Your task to perform on an android device: Open Android settings Image 0: 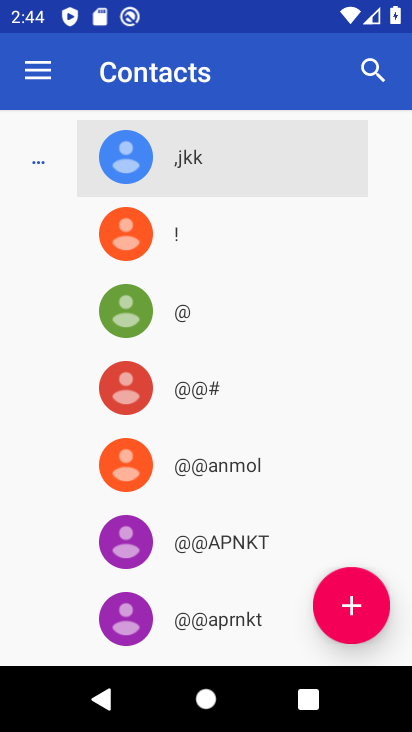
Step 0: press back button
Your task to perform on an android device: Open Android settings Image 1: 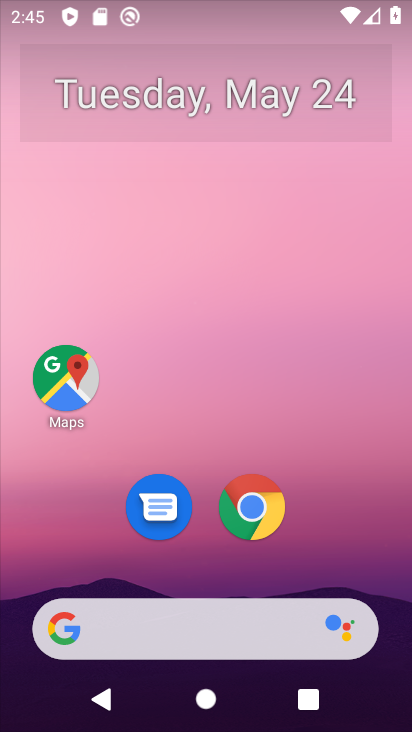
Step 1: drag from (187, 566) to (255, 99)
Your task to perform on an android device: Open Android settings Image 2: 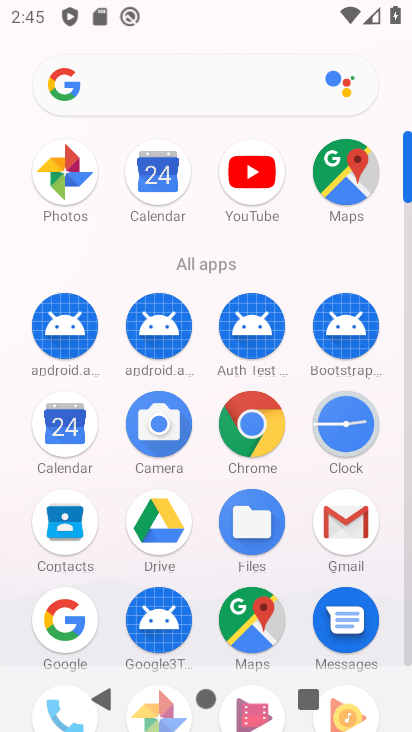
Step 2: drag from (168, 591) to (268, 143)
Your task to perform on an android device: Open Android settings Image 3: 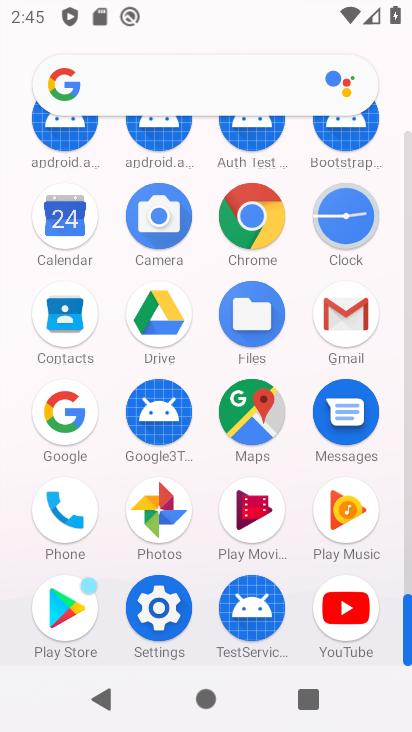
Step 3: click (159, 605)
Your task to perform on an android device: Open Android settings Image 4: 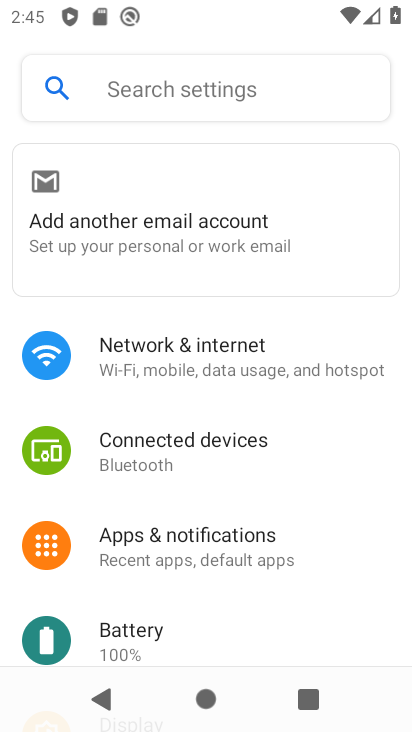
Step 4: drag from (152, 596) to (298, 46)
Your task to perform on an android device: Open Android settings Image 5: 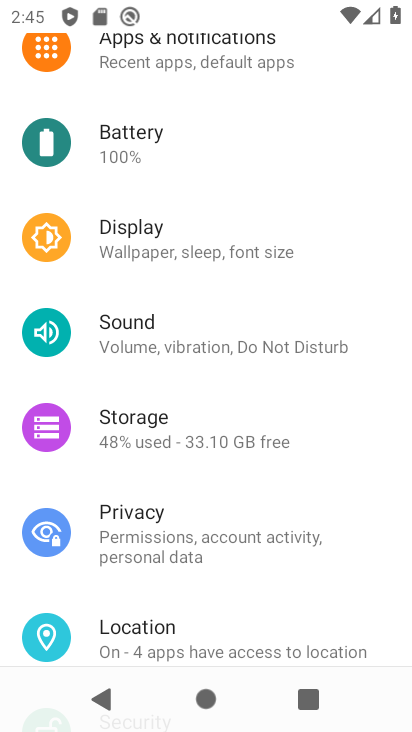
Step 5: drag from (156, 579) to (261, 100)
Your task to perform on an android device: Open Android settings Image 6: 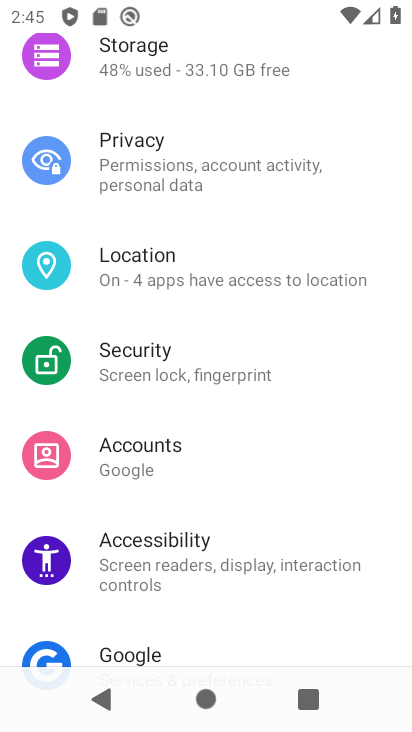
Step 6: drag from (155, 626) to (260, 85)
Your task to perform on an android device: Open Android settings Image 7: 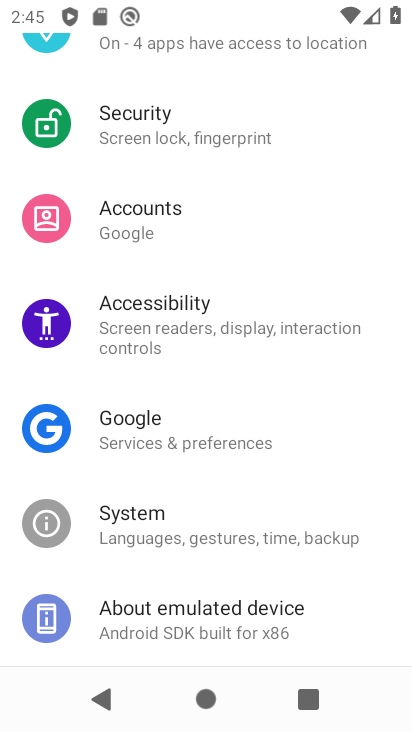
Step 7: click (166, 617)
Your task to perform on an android device: Open Android settings Image 8: 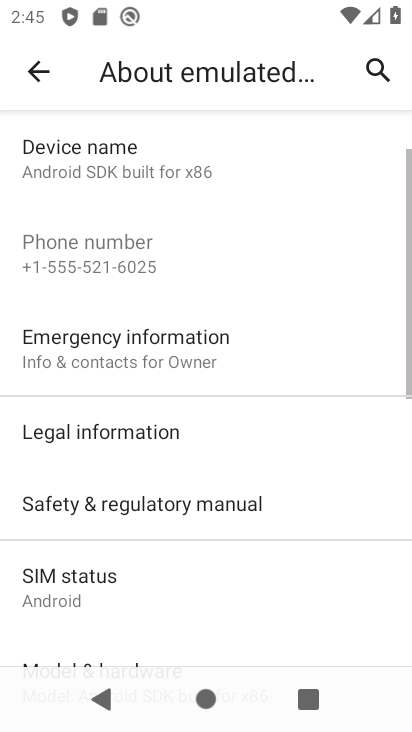
Step 8: drag from (159, 621) to (250, 282)
Your task to perform on an android device: Open Android settings Image 9: 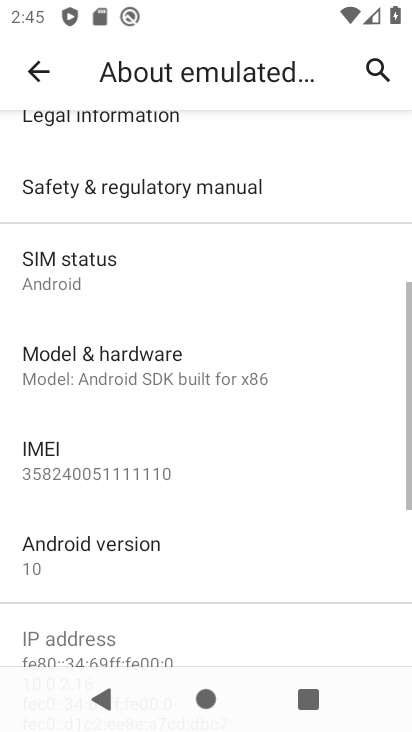
Step 9: click (80, 547)
Your task to perform on an android device: Open Android settings Image 10: 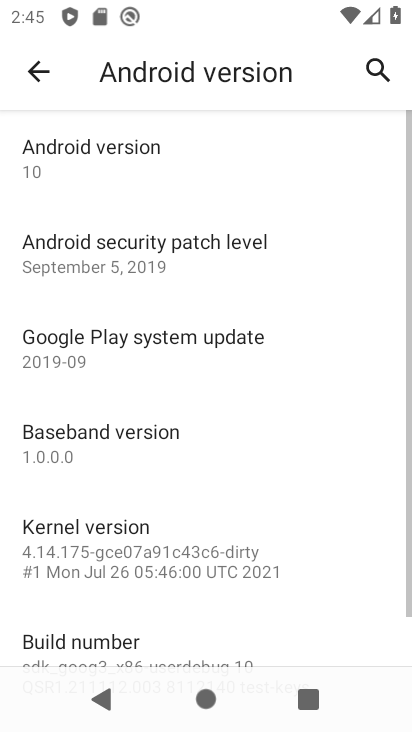
Step 10: task complete